Your task to perform on an android device: Go to Android settings Image 0: 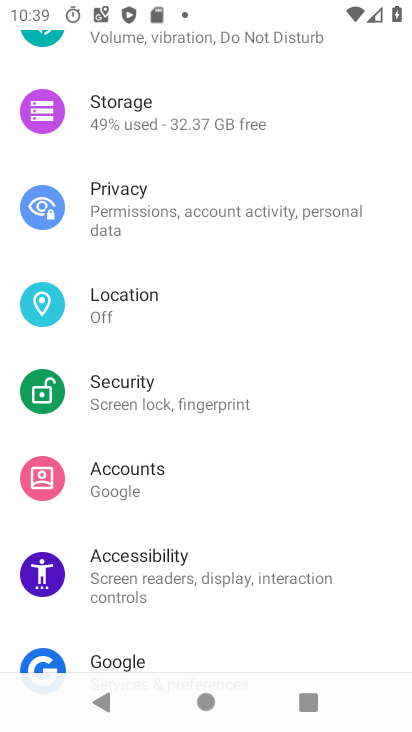
Step 0: drag from (229, 581) to (221, 109)
Your task to perform on an android device: Go to Android settings Image 1: 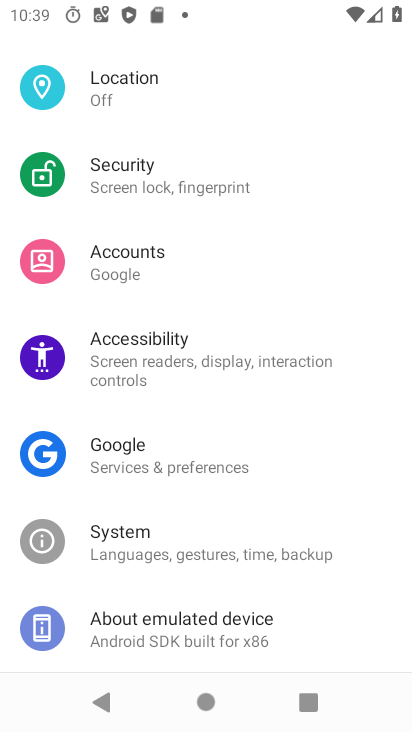
Step 1: task complete